Your task to perform on an android device: turn on bluetooth scan Image 0: 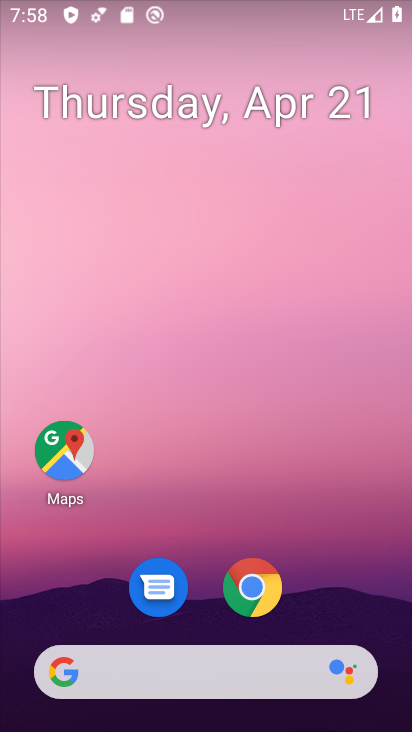
Step 0: drag from (367, 617) to (357, 225)
Your task to perform on an android device: turn on bluetooth scan Image 1: 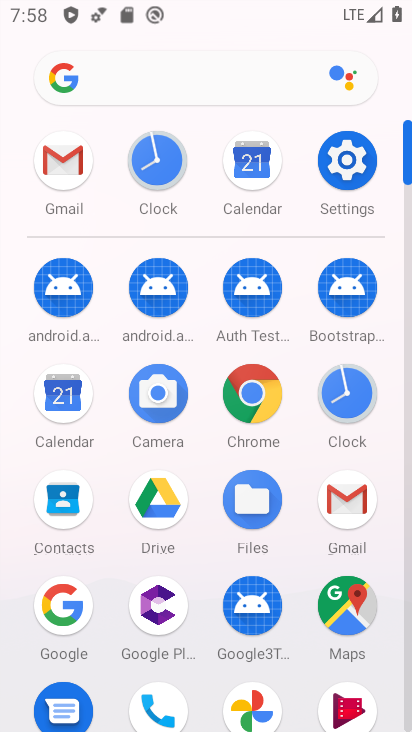
Step 1: click (348, 146)
Your task to perform on an android device: turn on bluetooth scan Image 2: 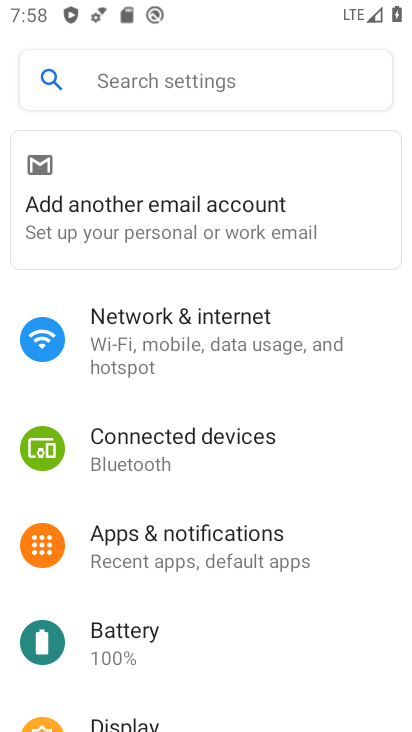
Step 2: drag from (349, 622) to (393, 221)
Your task to perform on an android device: turn on bluetooth scan Image 3: 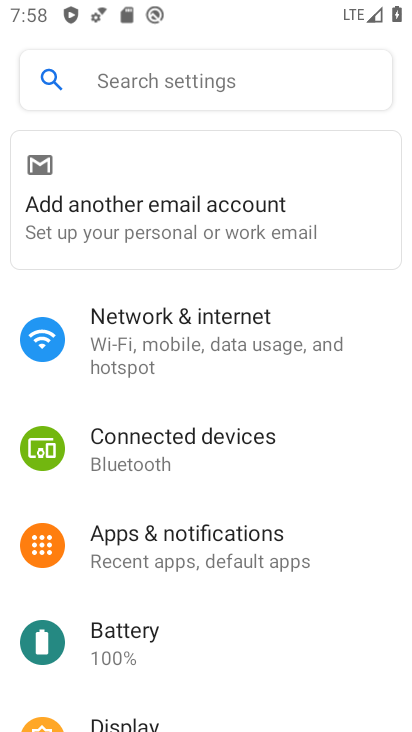
Step 3: drag from (381, 669) to (381, 165)
Your task to perform on an android device: turn on bluetooth scan Image 4: 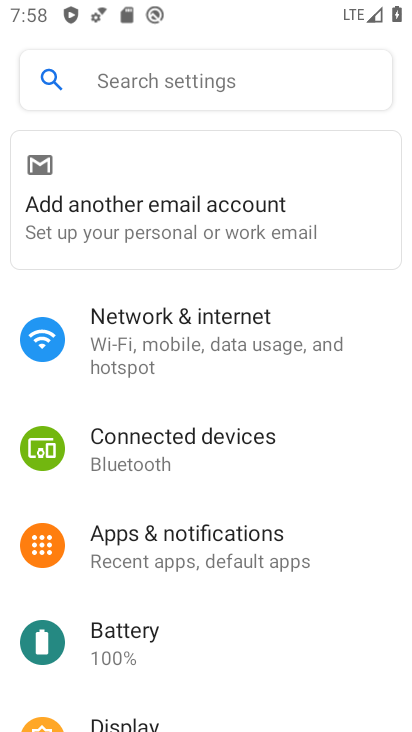
Step 4: drag from (375, 705) to (369, 219)
Your task to perform on an android device: turn on bluetooth scan Image 5: 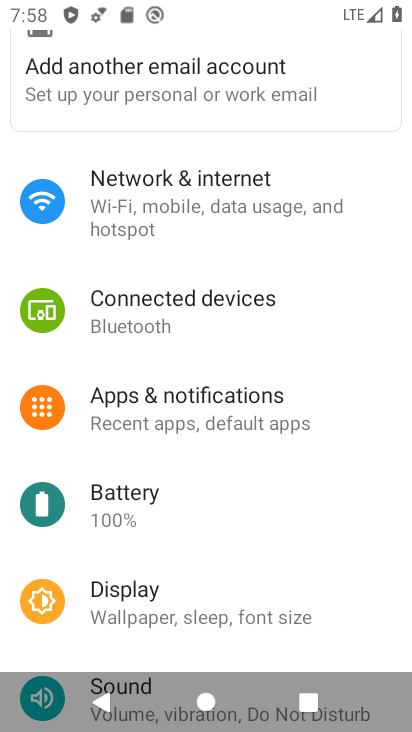
Step 5: drag from (361, 234) to (361, 180)
Your task to perform on an android device: turn on bluetooth scan Image 6: 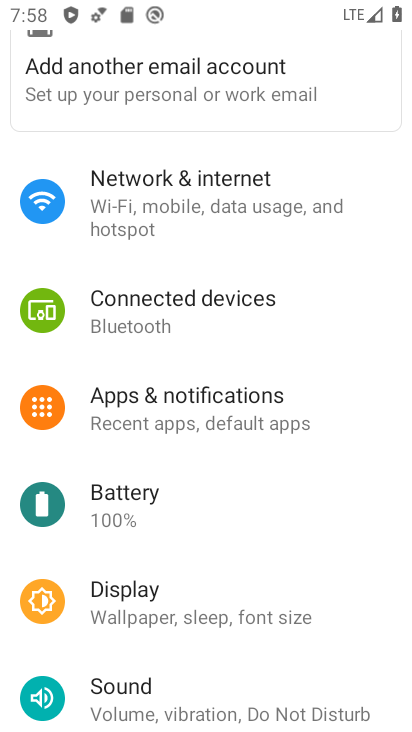
Step 6: drag from (387, 698) to (385, 201)
Your task to perform on an android device: turn on bluetooth scan Image 7: 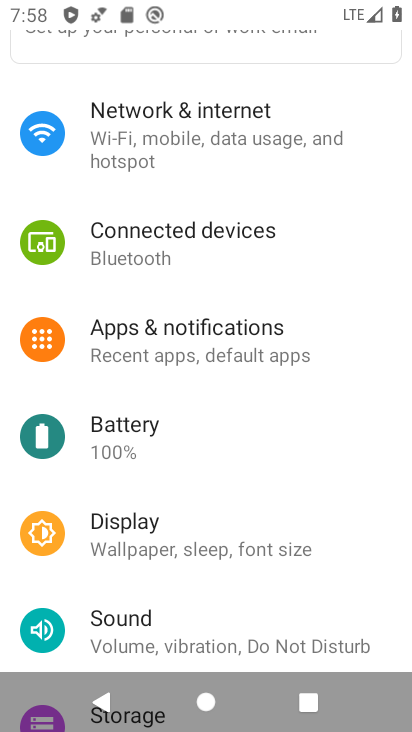
Step 7: drag from (393, 278) to (389, 39)
Your task to perform on an android device: turn on bluetooth scan Image 8: 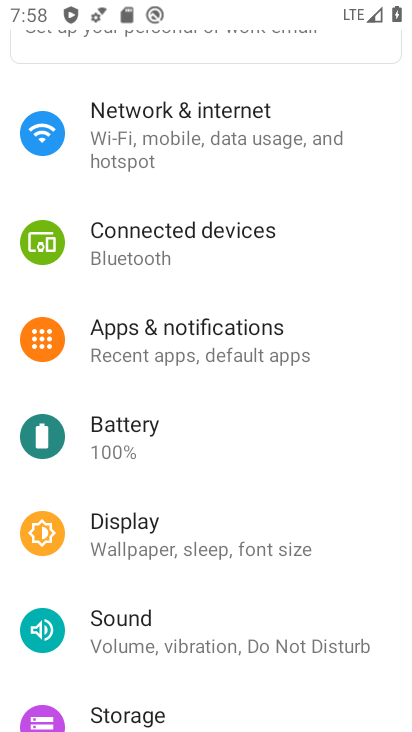
Step 8: drag from (399, 389) to (391, 269)
Your task to perform on an android device: turn on bluetooth scan Image 9: 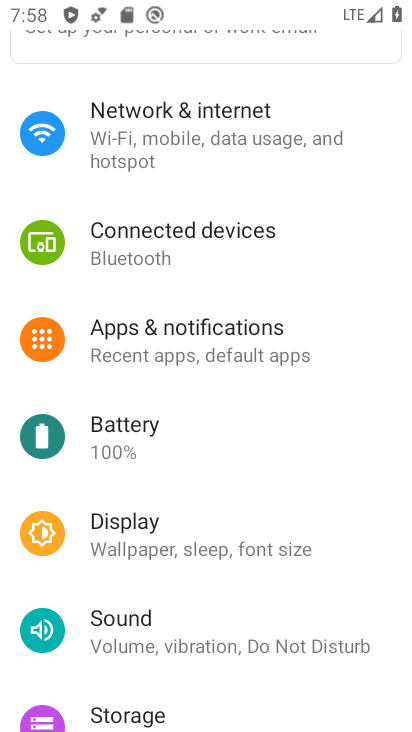
Step 9: drag from (387, 688) to (376, 331)
Your task to perform on an android device: turn on bluetooth scan Image 10: 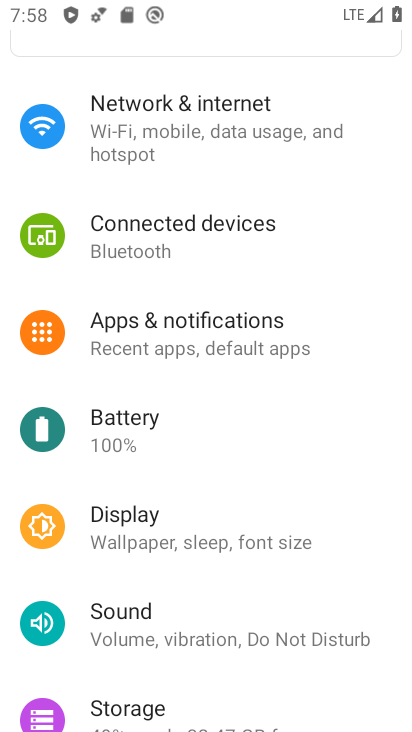
Step 10: drag from (391, 716) to (371, 287)
Your task to perform on an android device: turn on bluetooth scan Image 11: 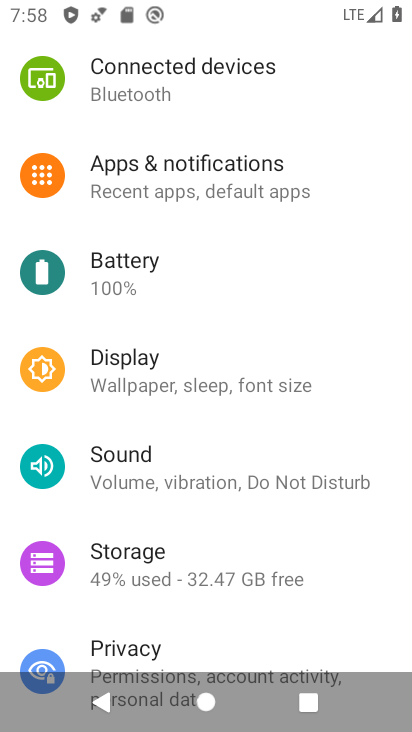
Step 11: drag from (385, 524) to (381, 299)
Your task to perform on an android device: turn on bluetooth scan Image 12: 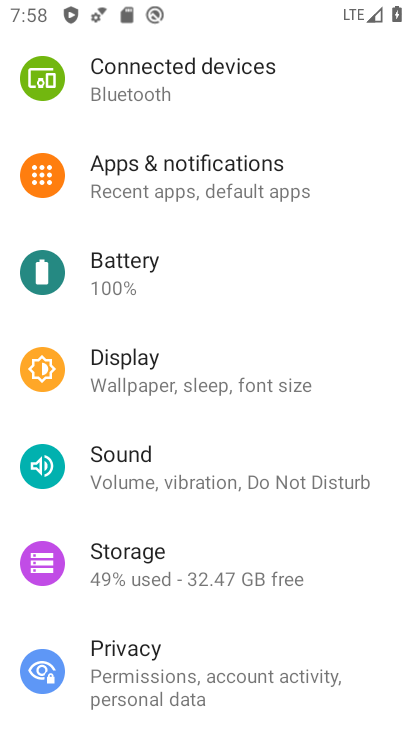
Step 12: click (366, 229)
Your task to perform on an android device: turn on bluetooth scan Image 13: 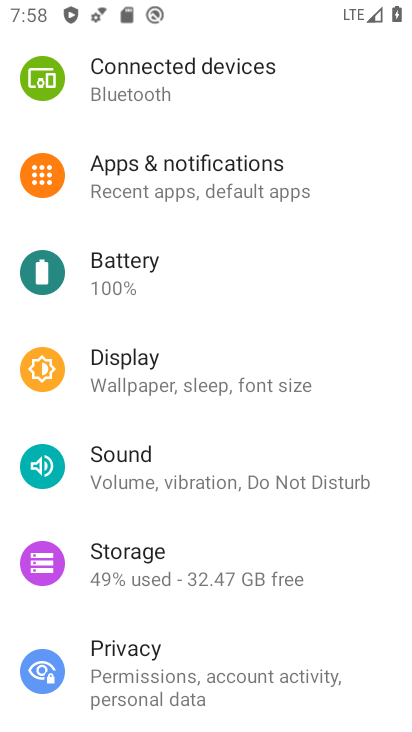
Step 13: drag from (390, 716) to (384, 654)
Your task to perform on an android device: turn on bluetooth scan Image 14: 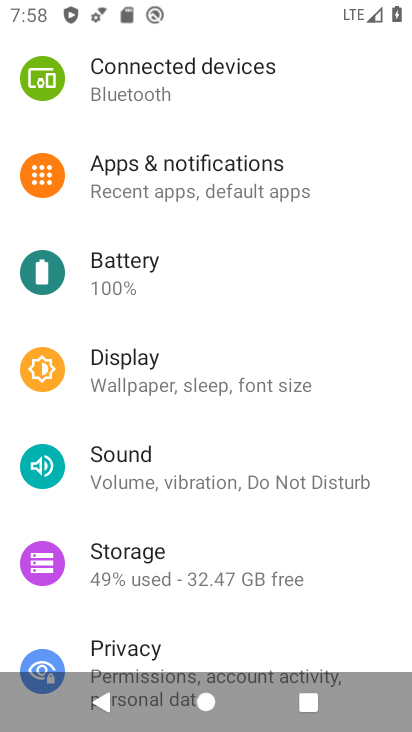
Step 14: drag from (378, 652) to (382, 372)
Your task to perform on an android device: turn on bluetooth scan Image 15: 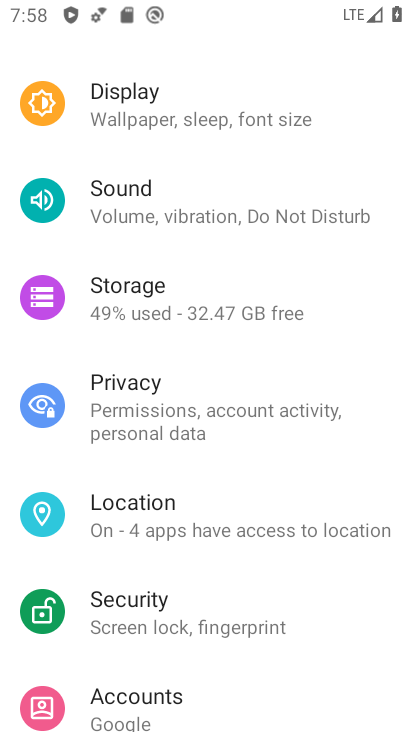
Step 15: click (116, 519)
Your task to perform on an android device: turn on bluetooth scan Image 16: 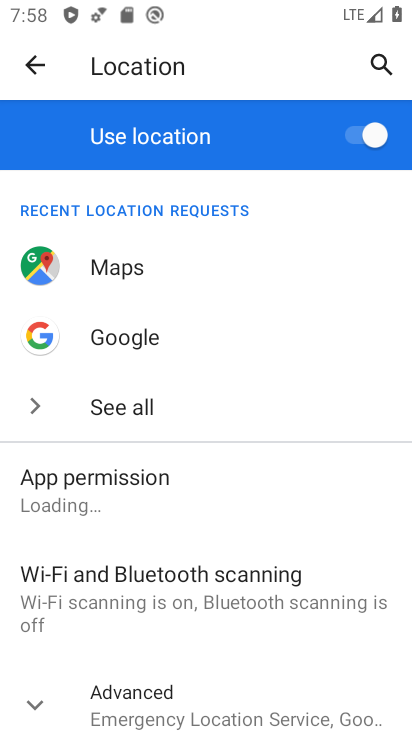
Step 16: click (74, 588)
Your task to perform on an android device: turn on bluetooth scan Image 17: 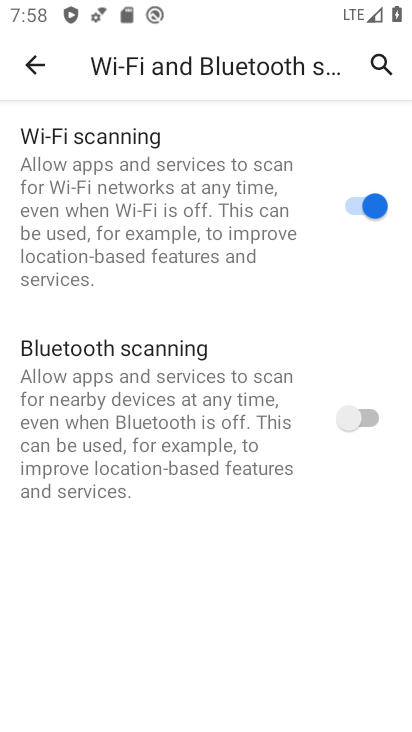
Step 17: click (372, 414)
Your task to perform on an android device: turn on bluetooth scan Image 18: 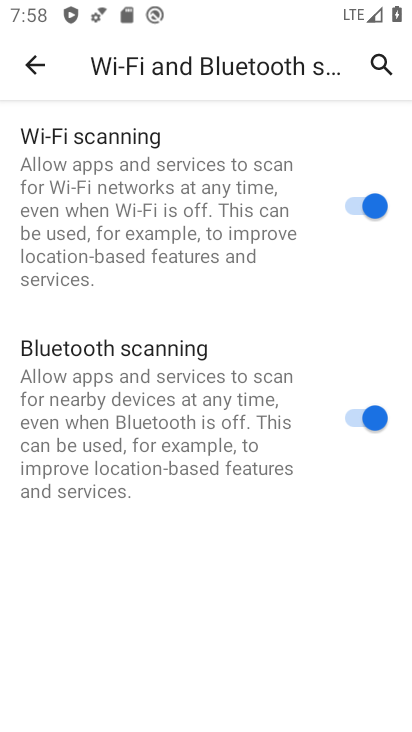
Step 18: task complete